Your task to perform on an android device: delete location history Image 0: 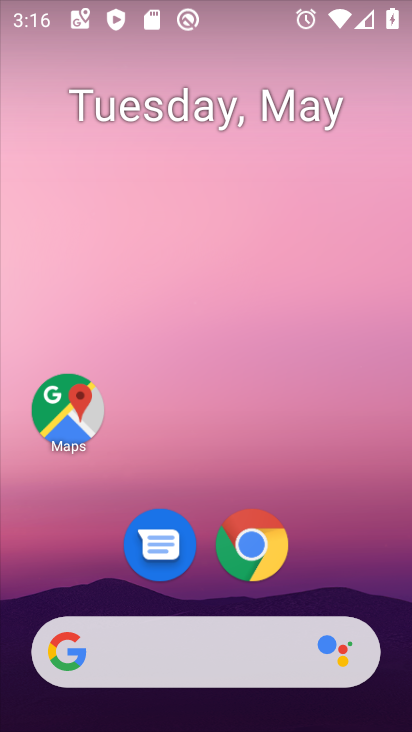
Step 0: drag from (162, 643) to (181, 151)
Your task to perform on an android device: delete location history Image 1: 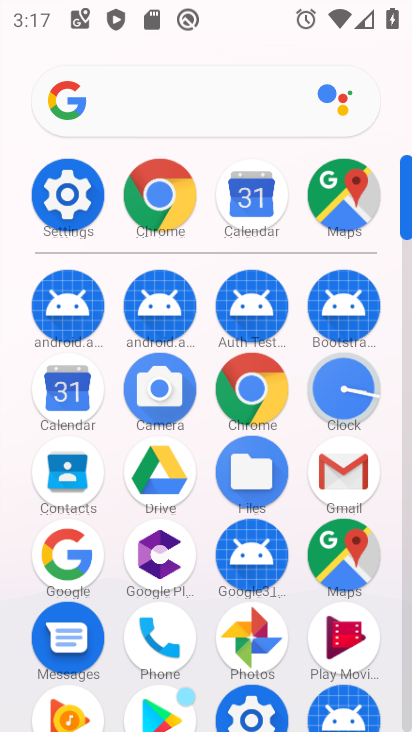
Step 1: click (330, 192)
Your task to perform on an android device: delete location history Image 2: 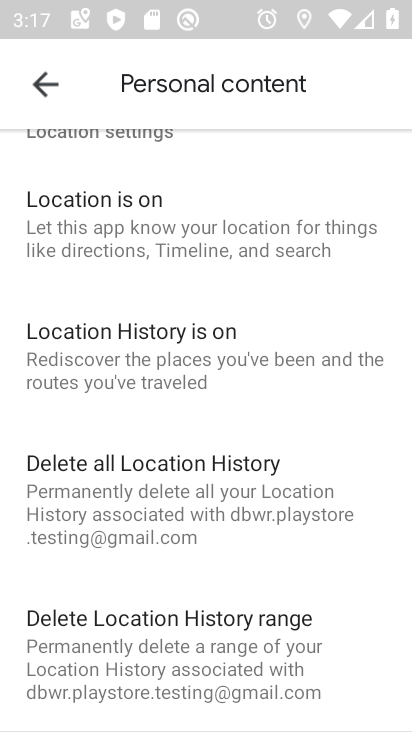
Step 2: click (178, 525)
Your task to perform on an android device: delete location history Image 3: 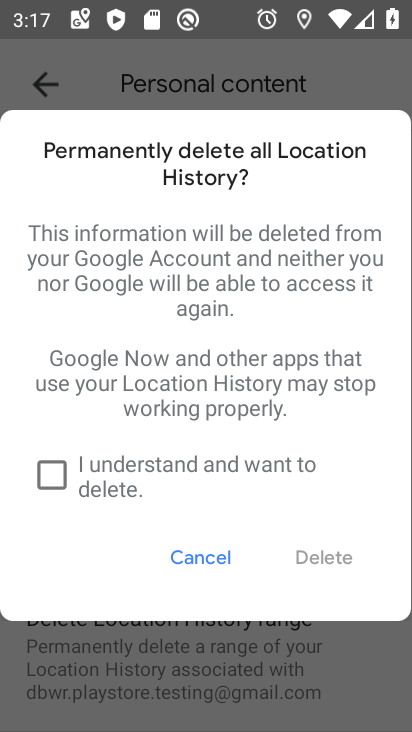
Step 3: click (98, 457)
Your task to perform on an android device: delete location history Image 4: 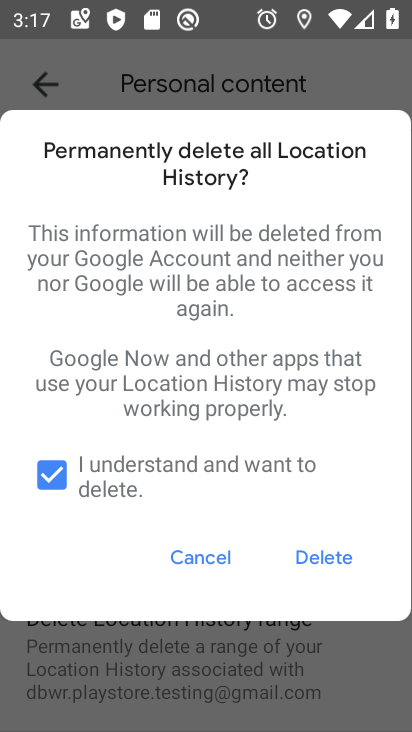
Step 4: click (322, 563)
Your task to perform on an android device: delete location history Image 5: 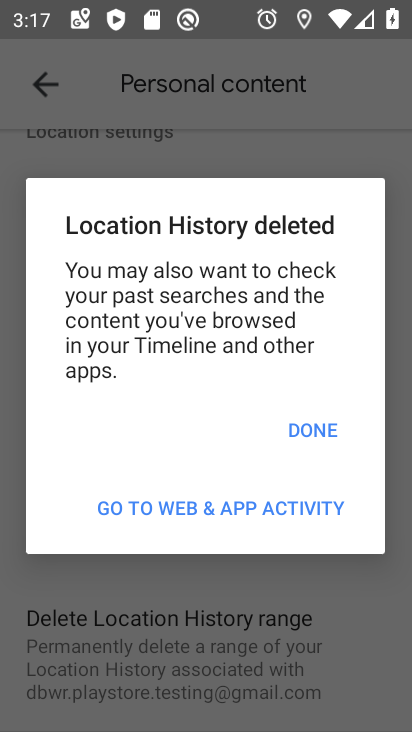
Step 5: task complete